Your task to perform on an android device: add a label to a message in the gmail app Image 0: 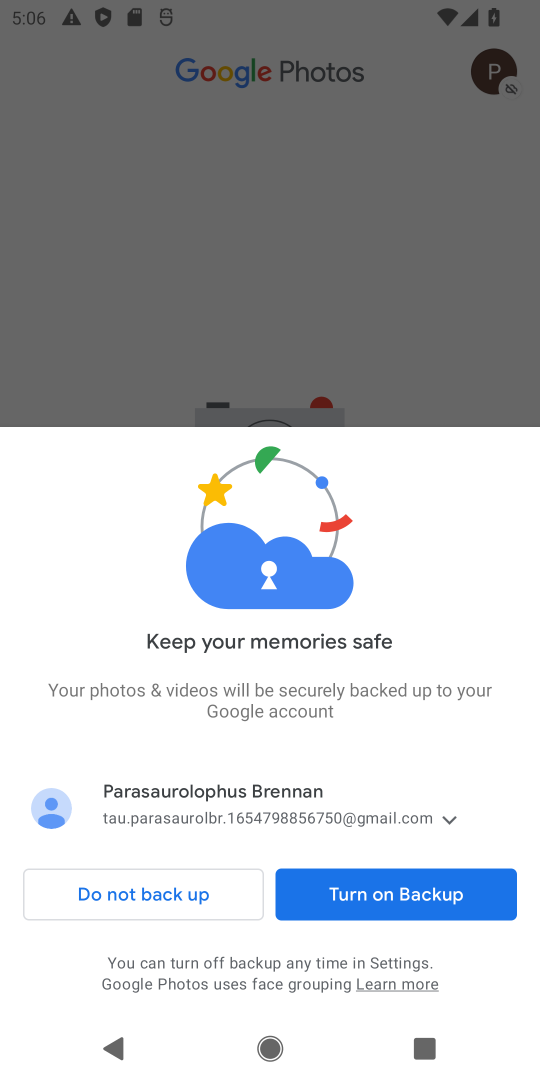
Step 0: press home button
Your task to perform on an android device: add a label to a message in the gmail app Image 1: 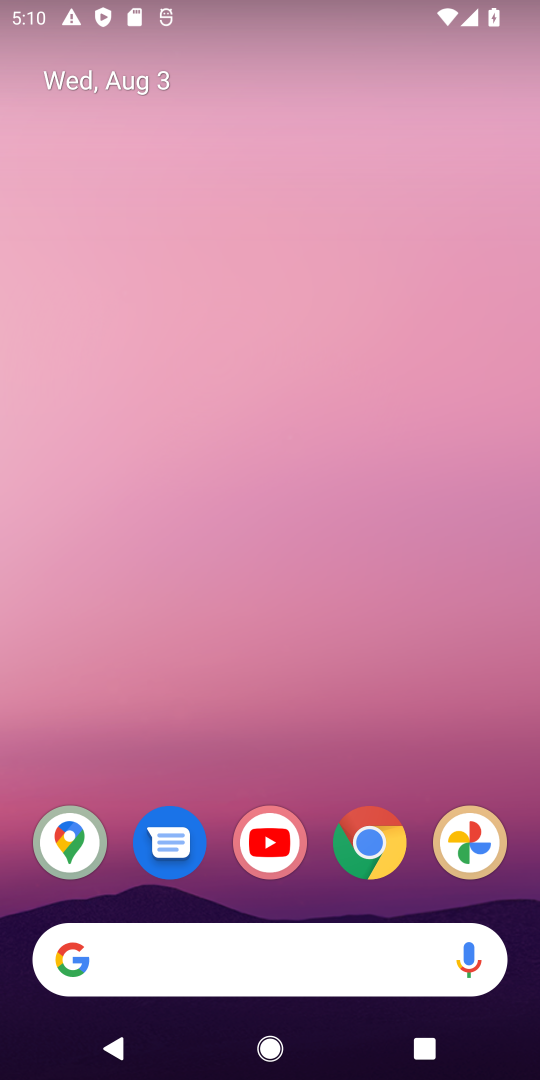
Step 1: drag from (199, 820) to (308, 253)
Your task to perform on an android device: add a label to a message in the gmail app Image 2: 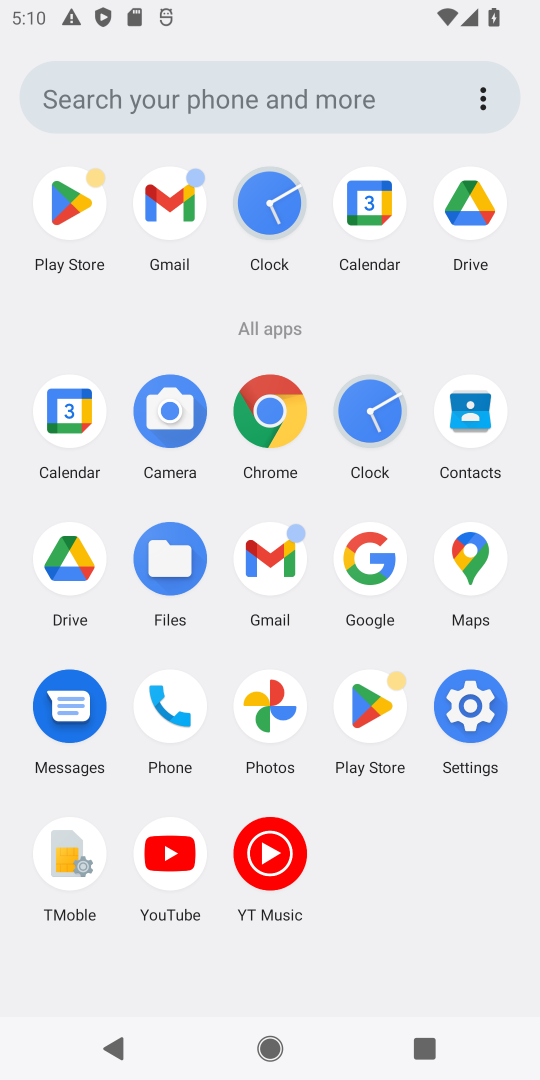
Step 2: click (170, 221)
Your task to perform on an android device: add a label to a message in the gmail app Image 3: 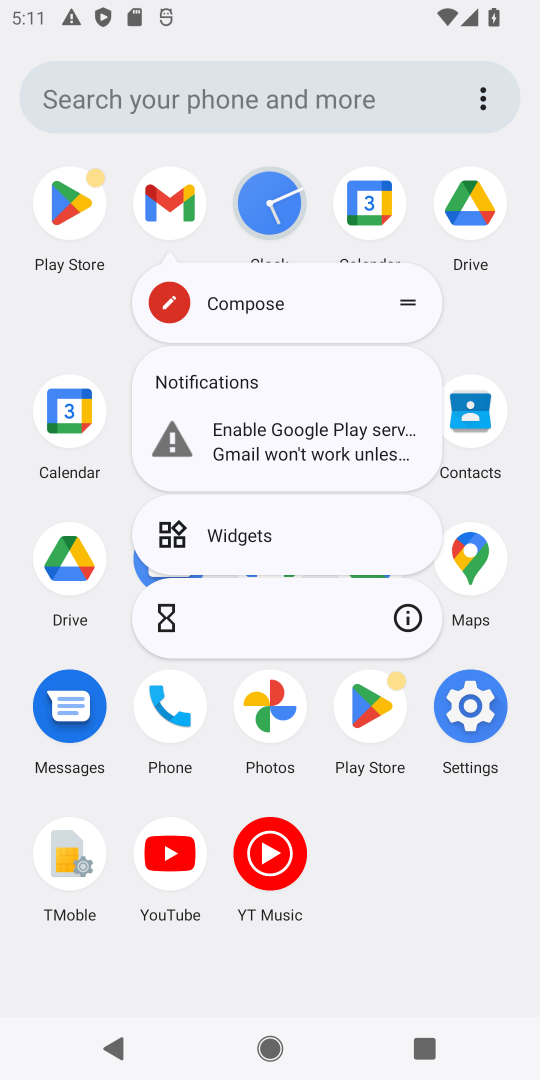
Step 3: click (151, 164)
Your task to perform on an android device: add a label to a message in the gmail app Image 4: 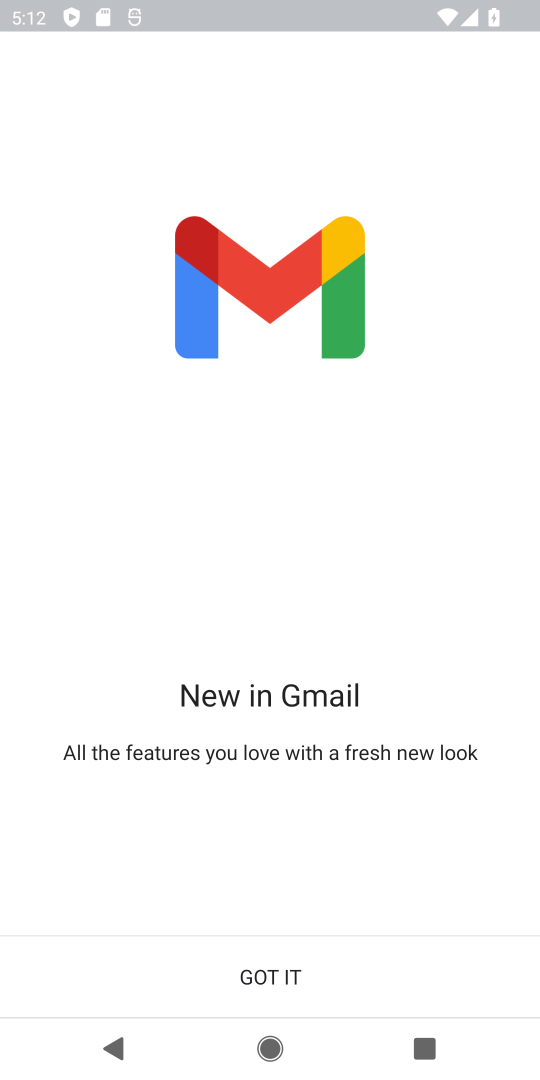
Step 4: click (262, 990)
Your task to perform on an android device: add a label to a message in the gmail app Image 5: 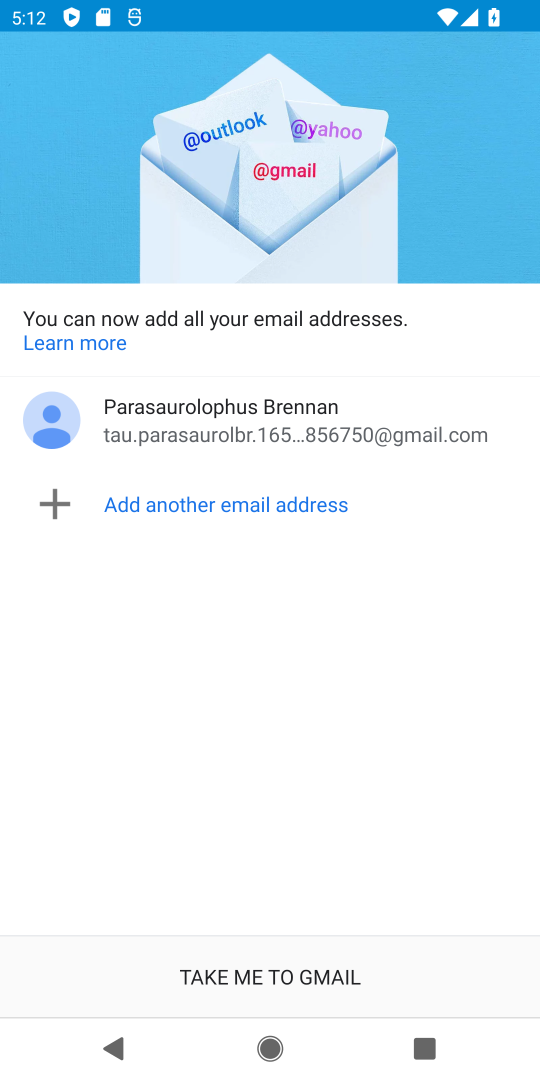
Step 5: click (266, 972)
Your task to perform on an android device: add a label to a message in the gmail app Image 6: 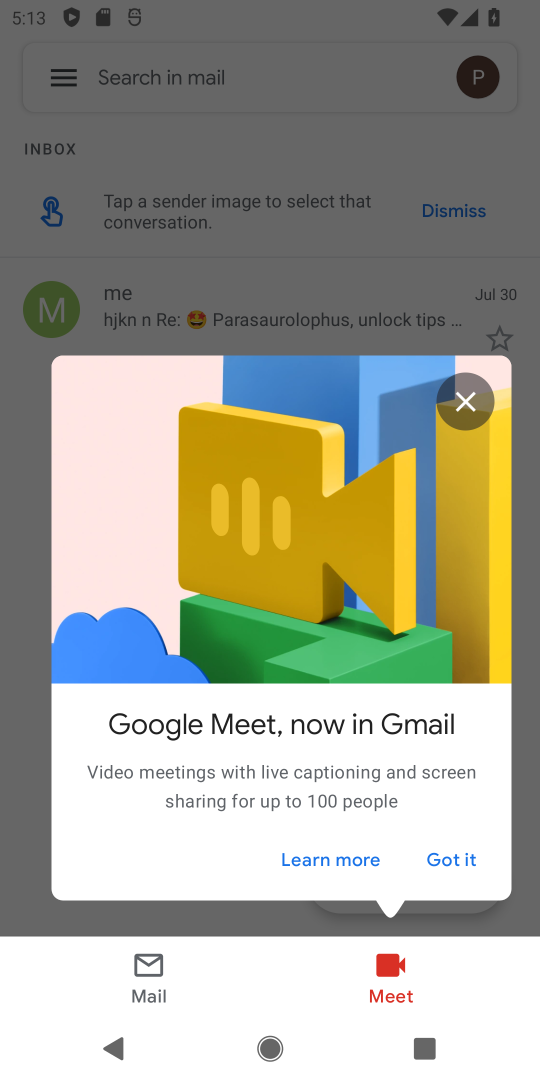
Step 6: click (466, 408)
Your task to perform on an android device: add a label to a message in the gmail app Image 7: 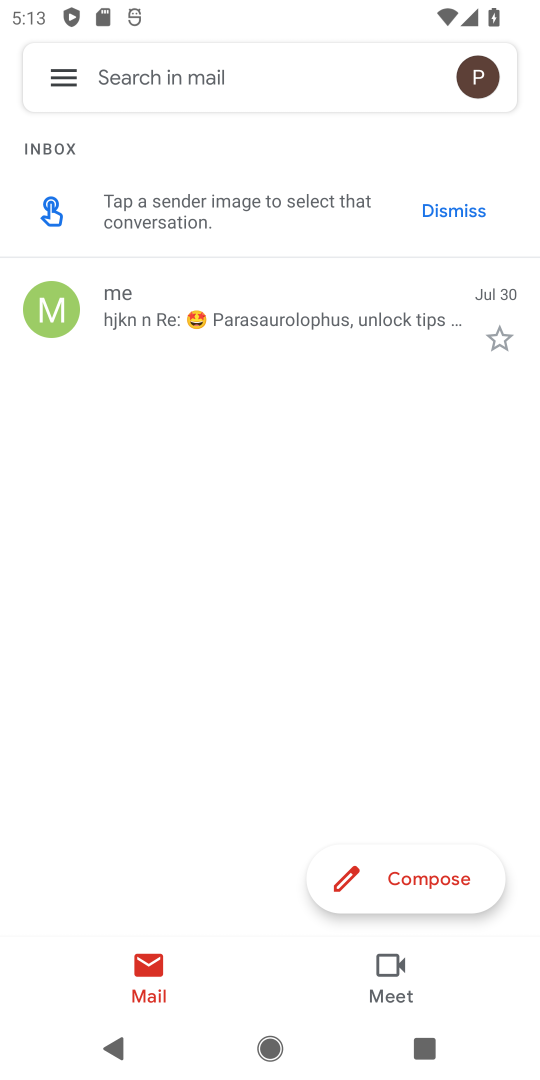
Step 7: click (238, 322)
Your task to perform on an android device: add a label to a message in the gmail app Image 8: 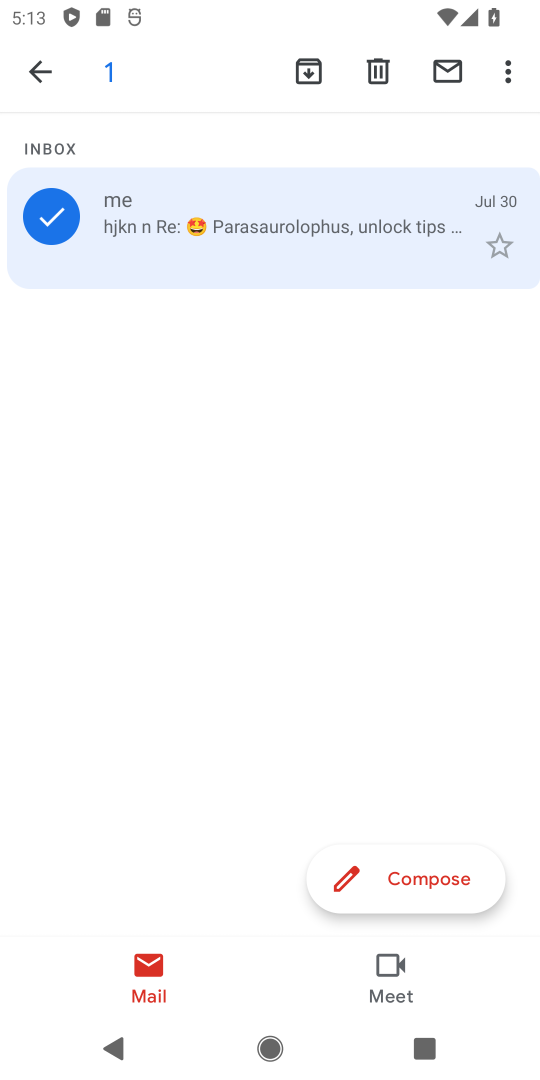
Step 8: click (510, 72)
Your task to perform on an android device: add a label to a message in the gmail app Image 9: 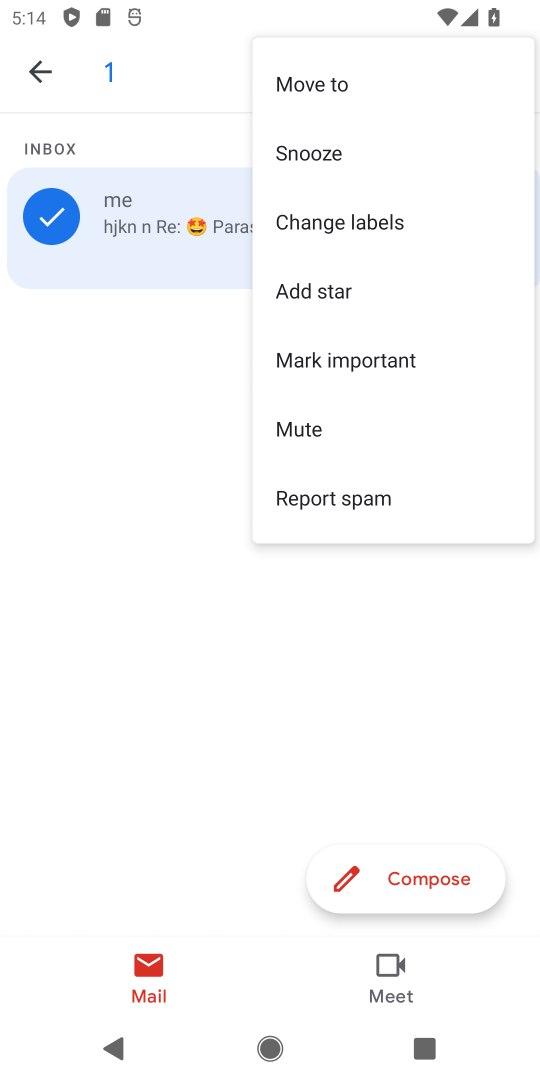
Step 9: click (395, 222)
Your task to perform on an android device: add a label to a message in the gmail app Image 10: 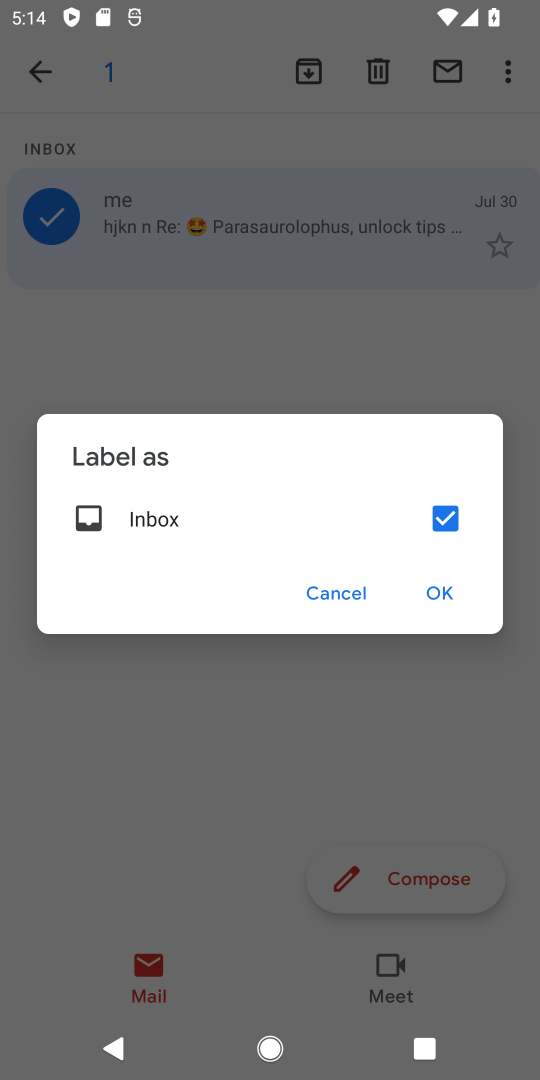
Step 10: click (438, 592)
Your task to perform on an android device: add a label to a message in the gmail app Image 11: 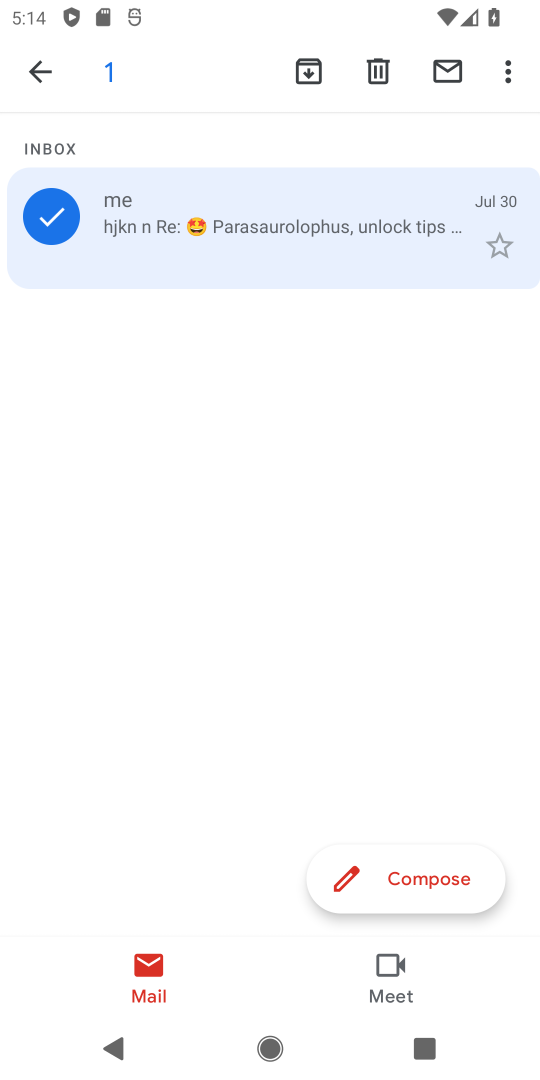
Step 11: task complete